Your task to perform on an android device: Open Android settings Image 0: 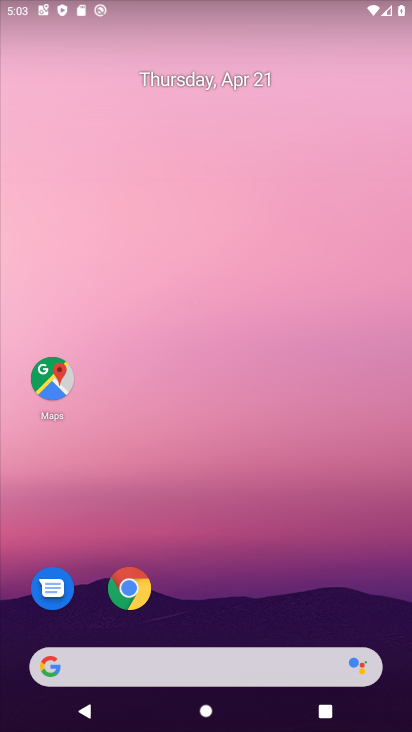
Step 0: drag from (205, 603) to (248, 126)
Your task to perform on an android device: Open Android settings Image 1: 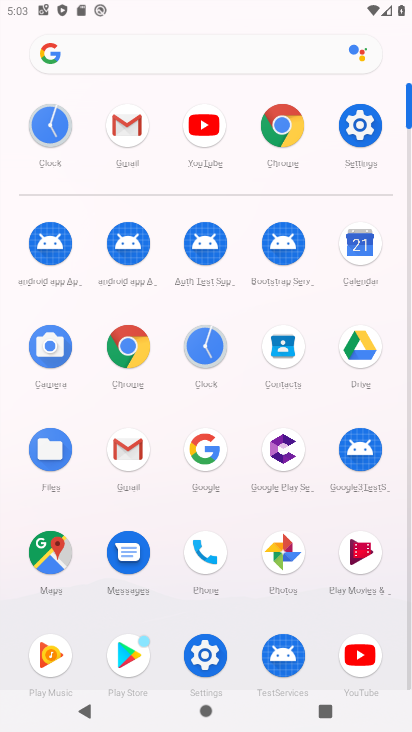
Step 1: click (353, 114)
Your task to perform on an android device: Open Android settings Image 2: 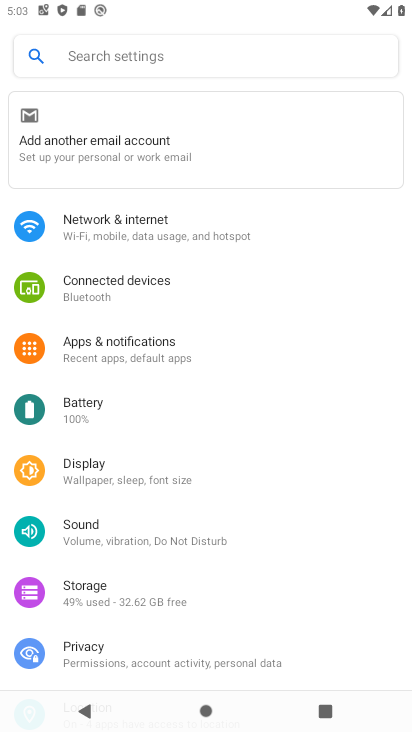
Step 2: drag from (176, 566) to (278, 7)
Your task to perform on an android device: Open Android settings Image 3: 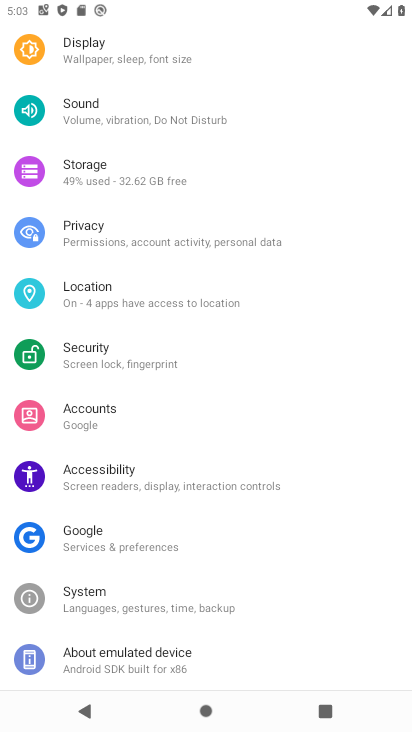
Step 3: drag from (153, 624) to (267, 66)
Your task to perform on an android device: Open Android settings Image 4: 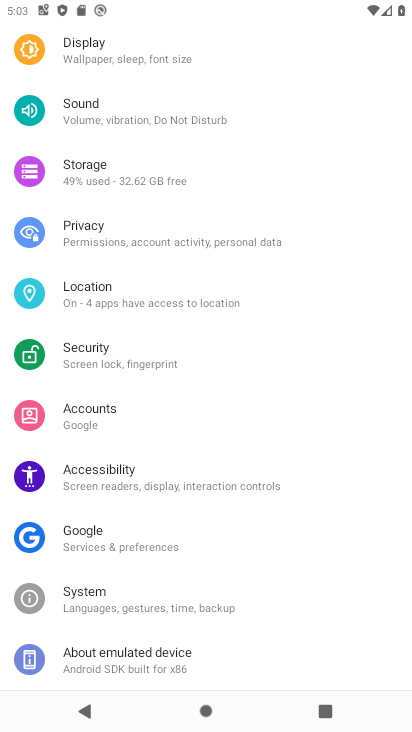
Step 4: click (119, 653)
Your task to perform on an android device: Open Android settings Image 5: 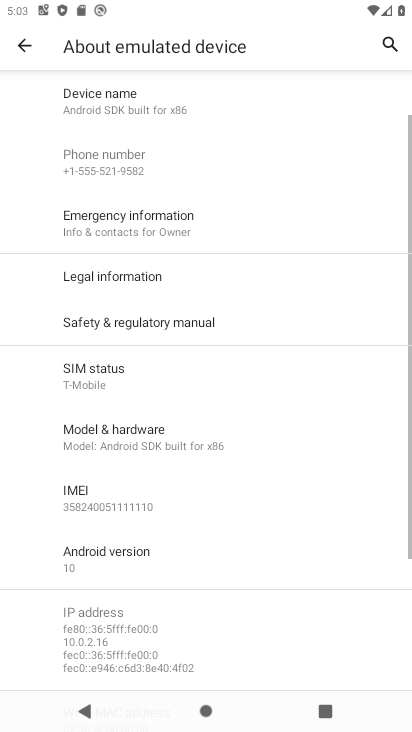
Step 5: click (117, 568)
Your task to perform on an android device: Open Android settings Image 6: 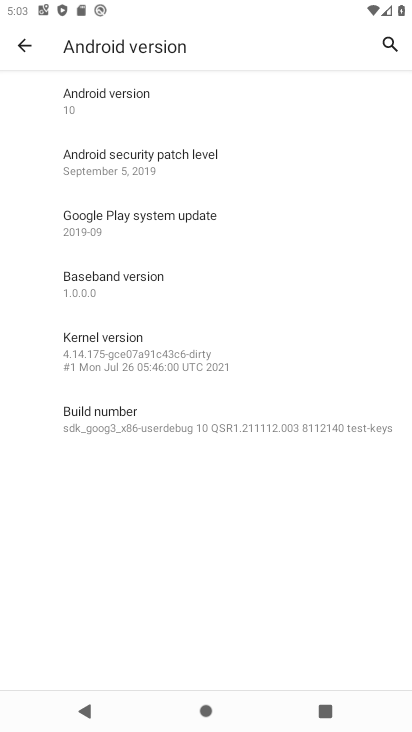
Step 6: task complete